Your task to perform on an android device: turn on airplane mode Image 0: 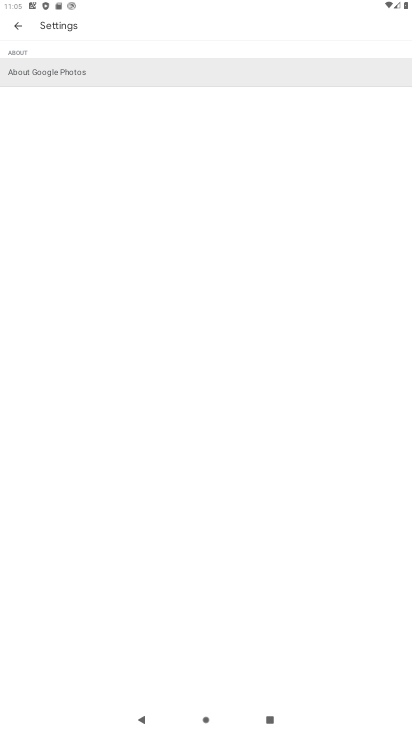
Step 0: press home button
Your task to perform on an android device: turn on airplane mode Image 1: 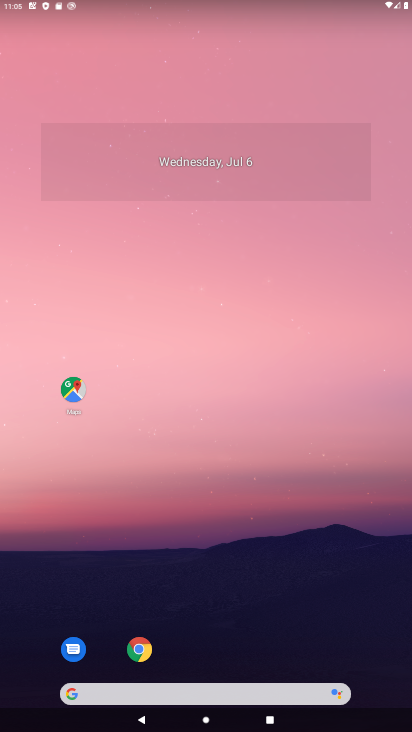
Step 1: drag from (266, 5) to (251, 493)
Your task to perform on an android device: turn on airplane mode Image 2: 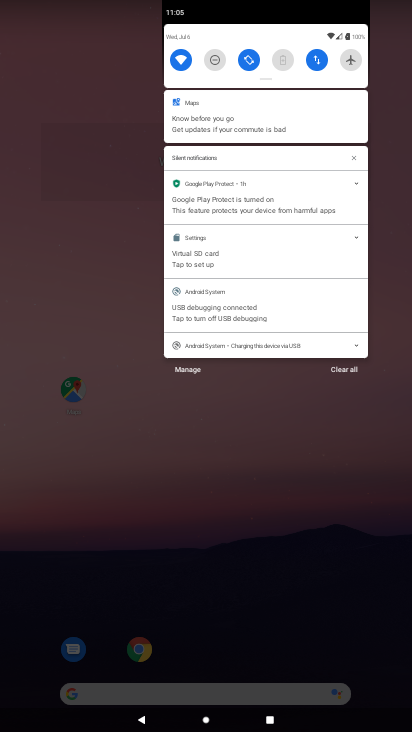
Step 2: click (351, 57)
Your task to perform on an android device: turn on airplane mode Image 3: 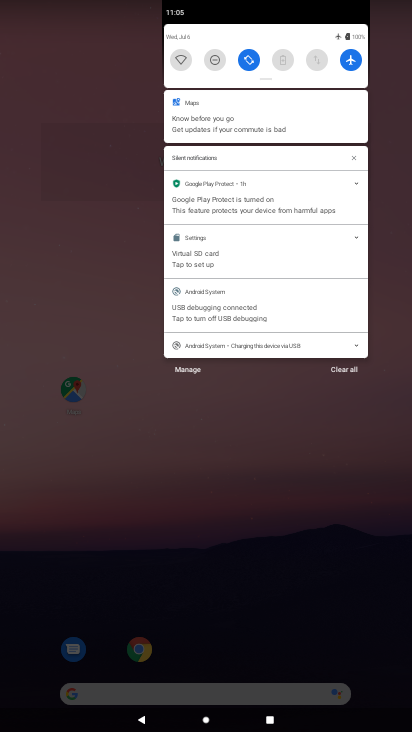
Step 3: task complete